Your task to perform on an android device: Open battery settings Image 0: 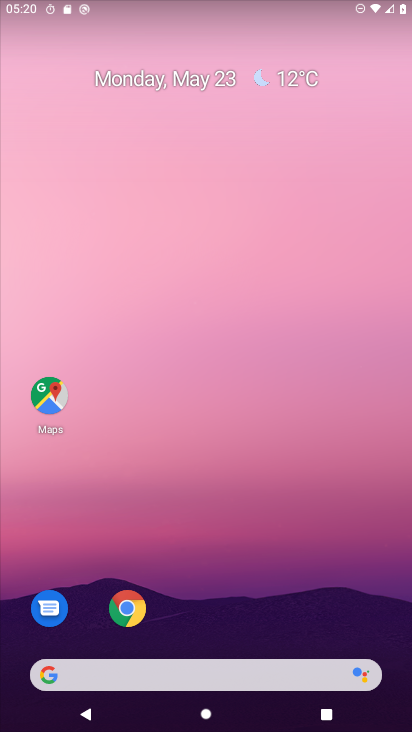
Step 0: drag from (303, 574) to (210, 130)
Your task to perform on an android device: Open battery settings Image 1: 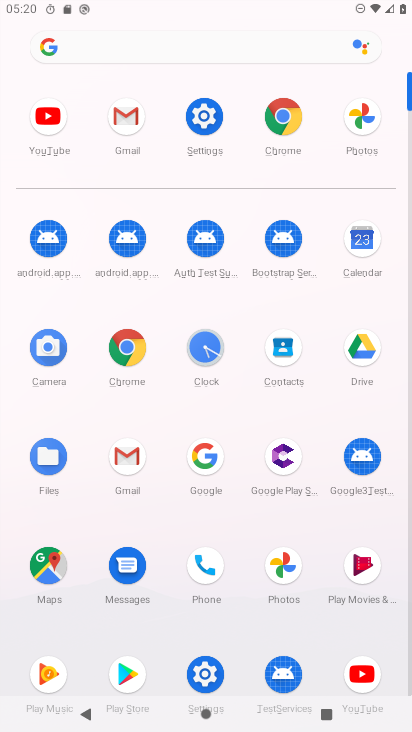
Step 1: click (204, 115)
Your task to perform on an android device: Open battery settings Image 2: 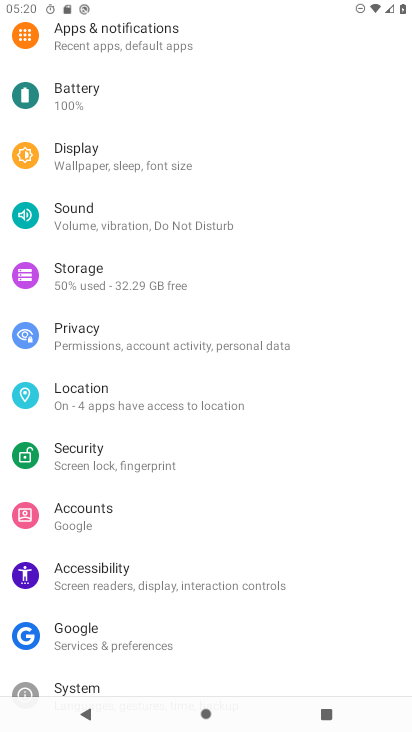
Step 2: click (154, 89)
Your task to perform on an android device: Open battery settings Image 3: 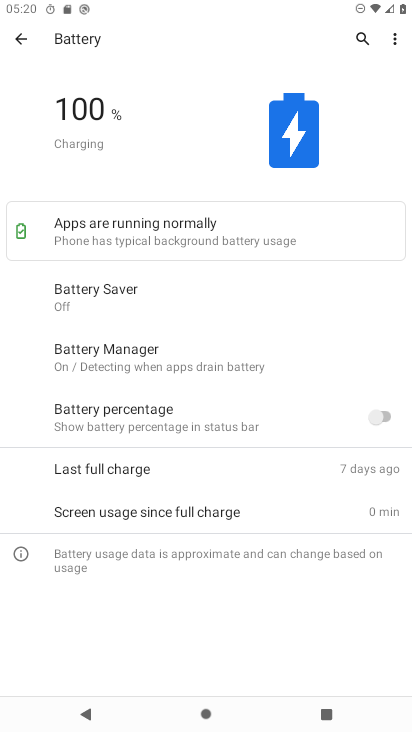
Step 3: task complete